Your task to perform on an android device: Open calendar and show me the fourth week of next month Image 0: 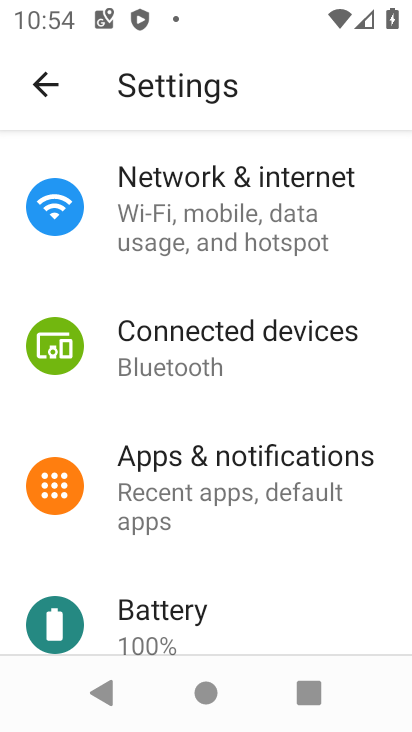
Step 0: press home button
Your task to perform on an android device: Open calendar and show me the fourth week of next month Image 1: 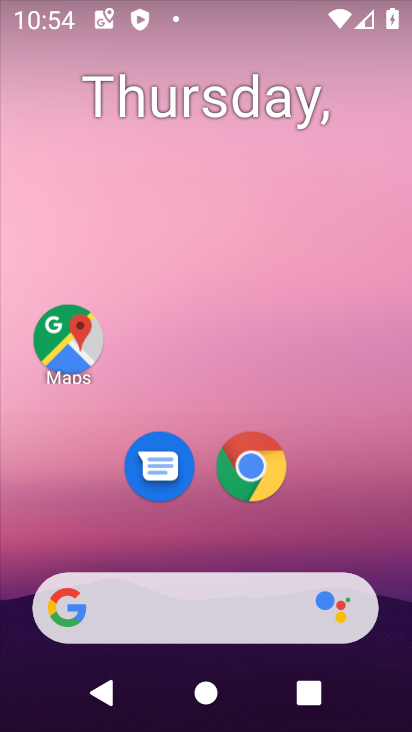
Step 1: drag from (192, 579) to (376, 84)
Your task to perform on an android device: Open calendar and show me the fourth week of next month Image 2: 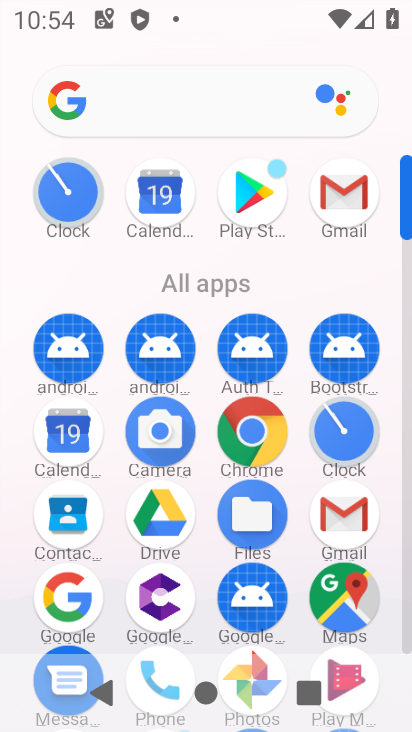
Step 2: click (63, 451)
Your task to perform on an android device: Open calendar and show me the fourth week of next month Image 3: 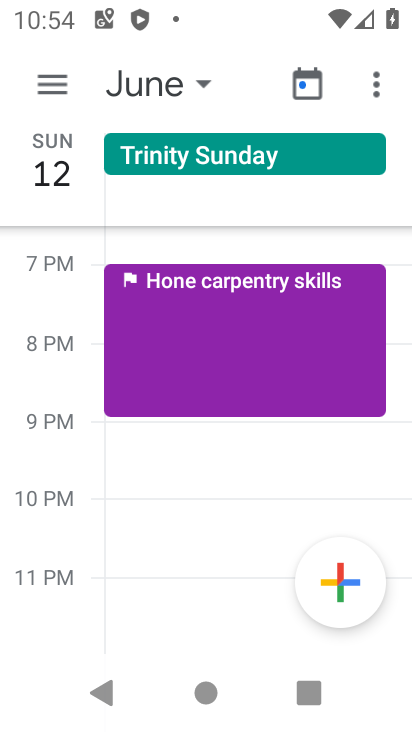
Step 3: click (46, 65)
Your task to perform on an android device: Open calendar and show me the fourth week of next month Image 4: 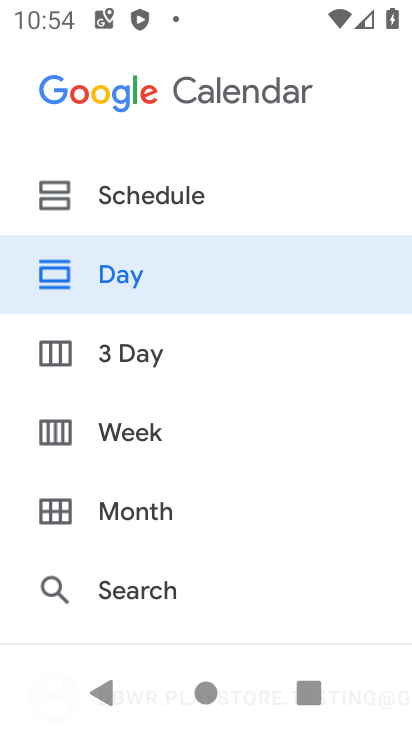
Step 4: click (151, 445)
Your task to perform on an android device: Open calendar and show me the fourth week of next month Image 5: 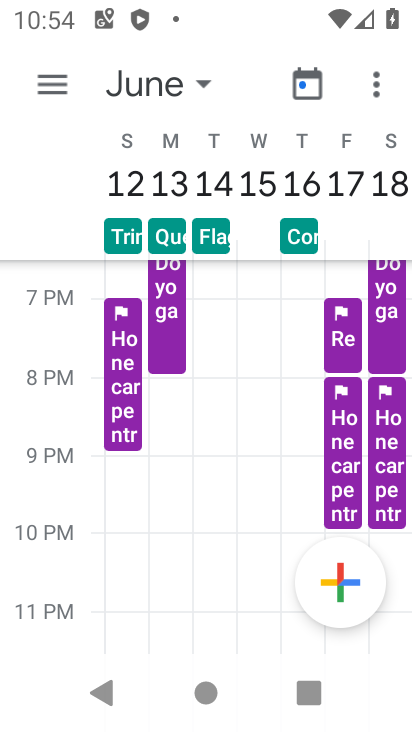
Step 5: task complete